Your task to perform on an android device: Open the Play Movies app and select the watchlist tab. Image 0: 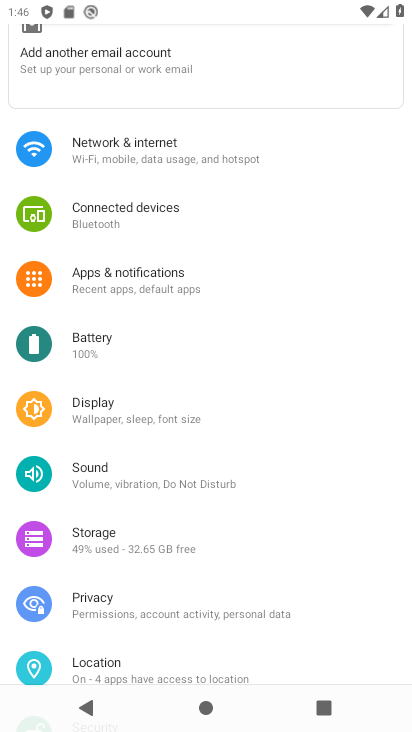
Step 0: press home button
Your task to perform on an android device: Open the Play Movies app and select the watchlist tab. Image 1: 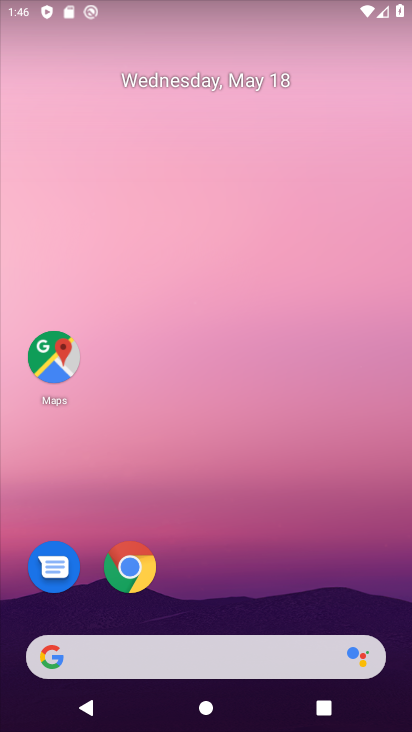
Step 1: drag from (218, 513) to (231, 138)
Your task to perform on an android device: Open the Play Movies app and select the watchlist tab. Image 2: 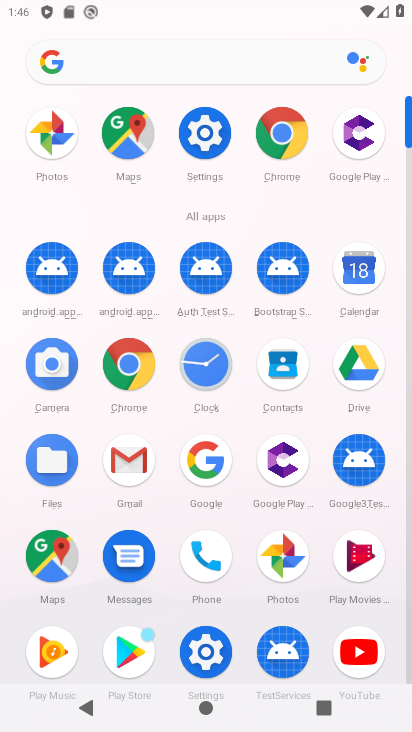
Step 2: click (348, 548)
Your task to perform on an android device: Open the Play Movies app and select the watchlist tab. Image 3: 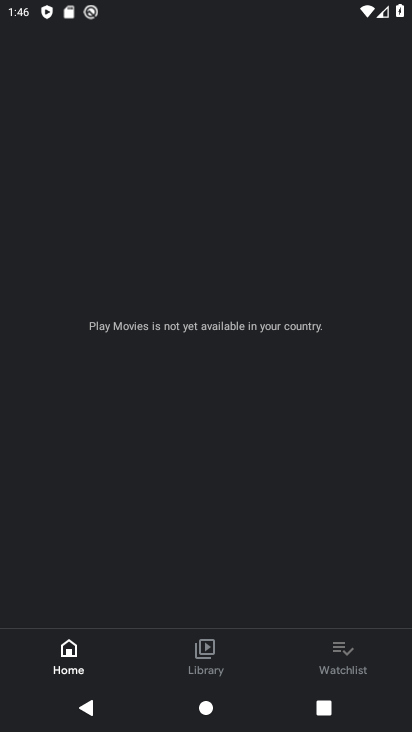
Step 3: click (339, 649)
Your task to perform on an android device: Open the Play Movies app and select the watchlist tab. Image 4: 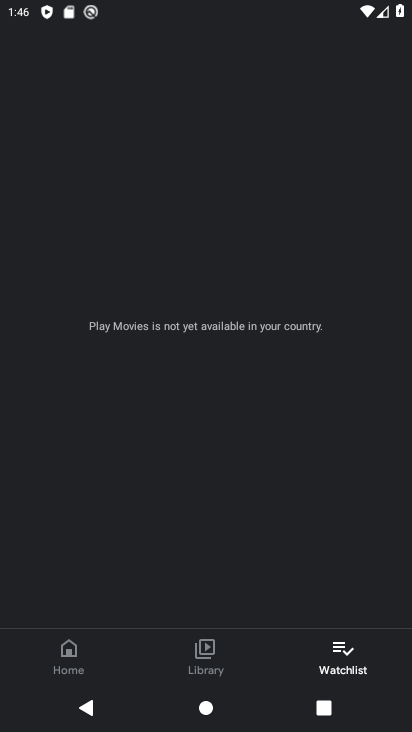
Step 4: task complete